Your task to perform on an android device: see creations saved in the google photos Image 0: 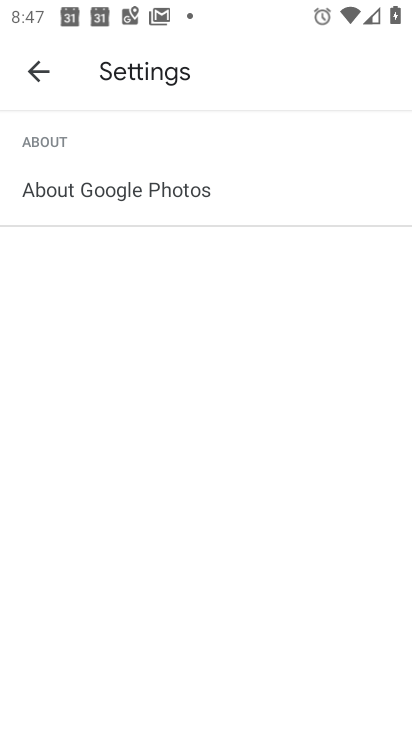
Step 0: press home button
Your task to perform on an android device: see creations saved in the google photos Image 1: 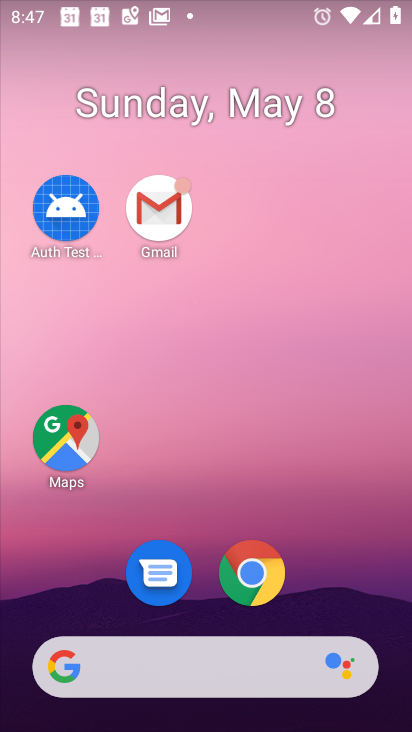
Step 1: drag from (320, 423) to (240, 199)
Your task to perform on an android device: see creations saved in the google photos Image 2: 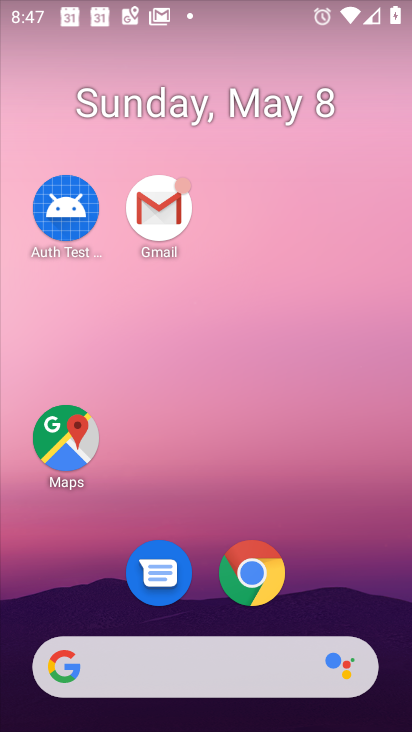
Step 2: drag from (365, 600) to (237, 191)
Your task to perform on an android device: see creations saved in the google photos Image 3: 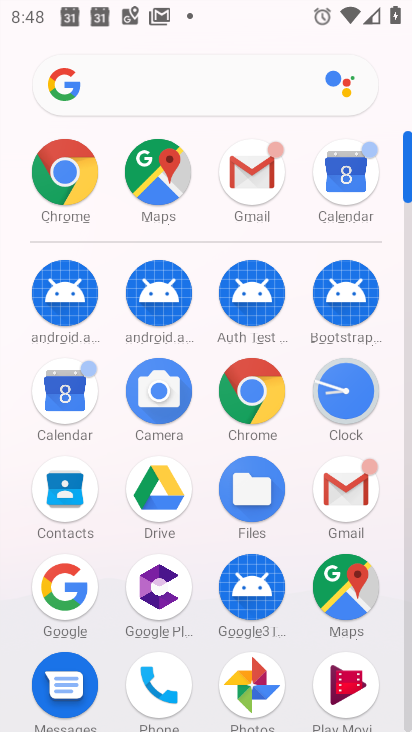
Step 3: click (257, 671)
Your task to perform on an android device: see creations saved in the google photos Image 4: 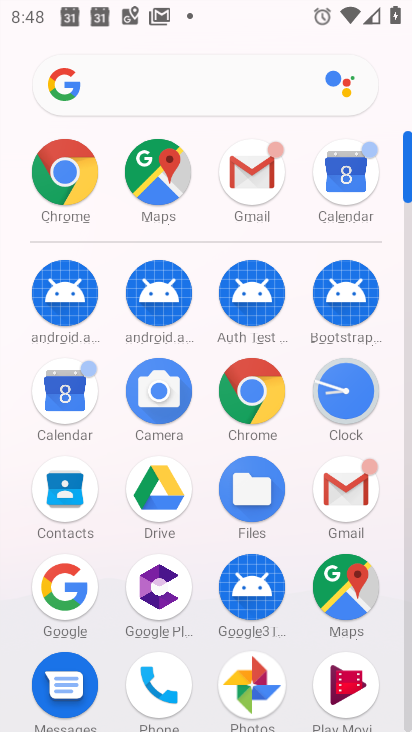
Step 4: click (258, 674)
Your task to perform on an android device: see creations saved in the google photos Image 5: 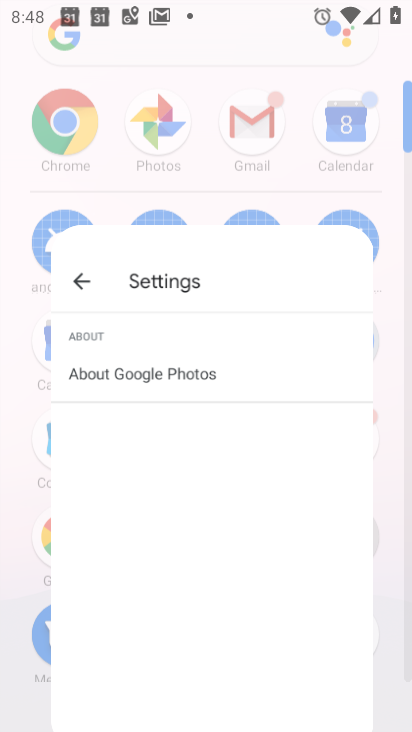
Step 5: click (258, 674)
Your task to perform on an android device: see creations saved in the google photos Image 6: 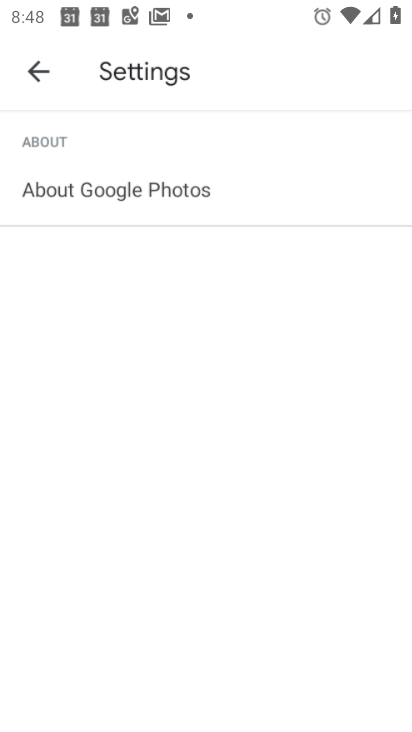
Step 6: click (254, 674)
Your task to perform on an android device: see creations saved in the google photos Image 7: 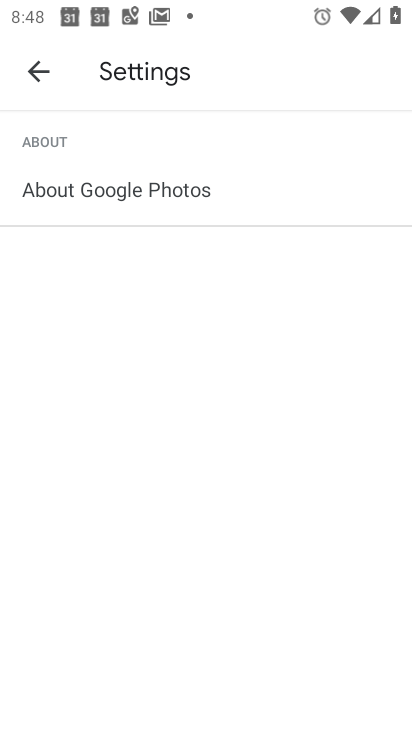
Step 7: click (247, 670)
Your task to perform on an android device: see creations saved in the google photos Image 8: 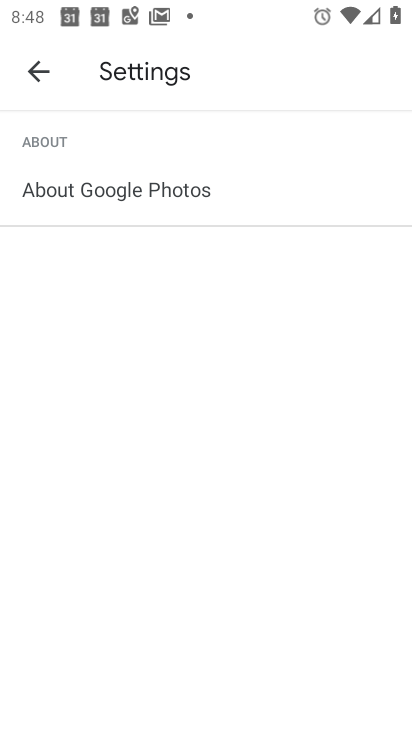
Step 8: click (246, 671)
Your task to perform on an android device: see creations saved in the google photos Image 9: 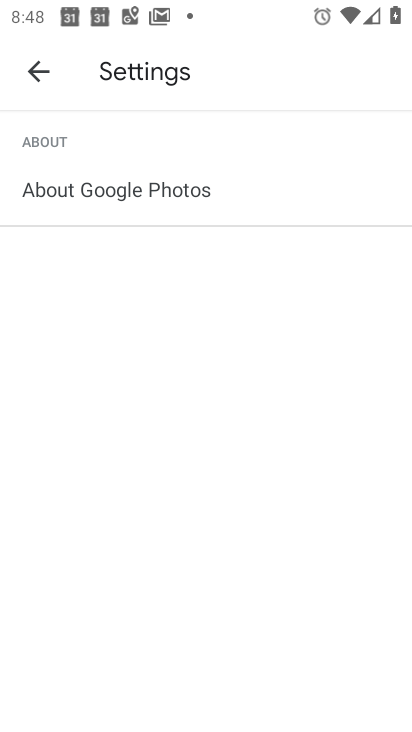
Step 9: click (38, 77)
Your task to perform on an android device: see creations saved in the google photos Image 10: 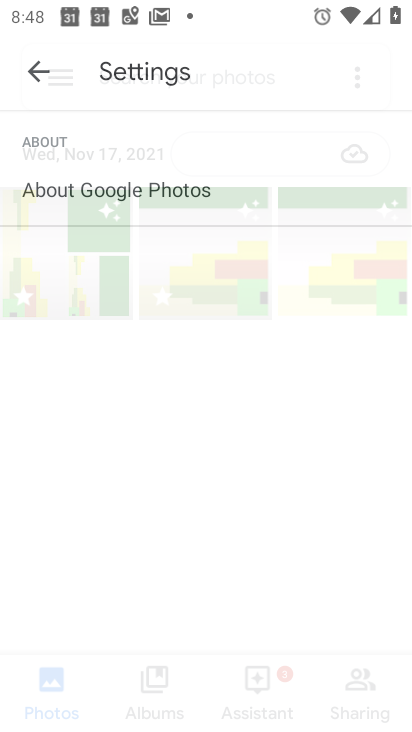
Step 10: click (36, 77)
Your task to perform on an android device: see creations saved in the google photos Image 11: 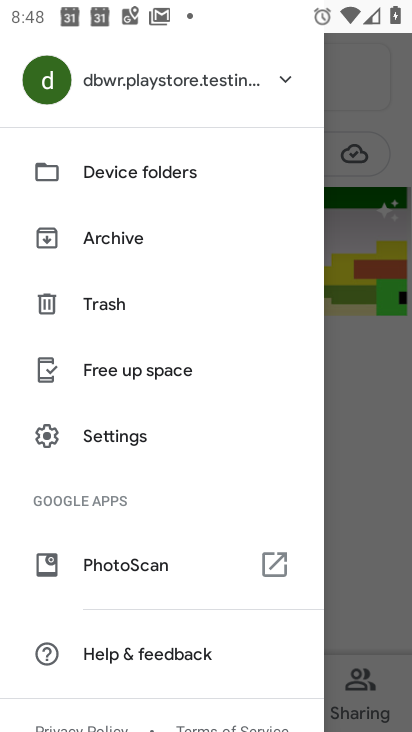
Step 11: click (365, 480)
Your task to perform on an android device: see creations saved in the google photos Image 12: 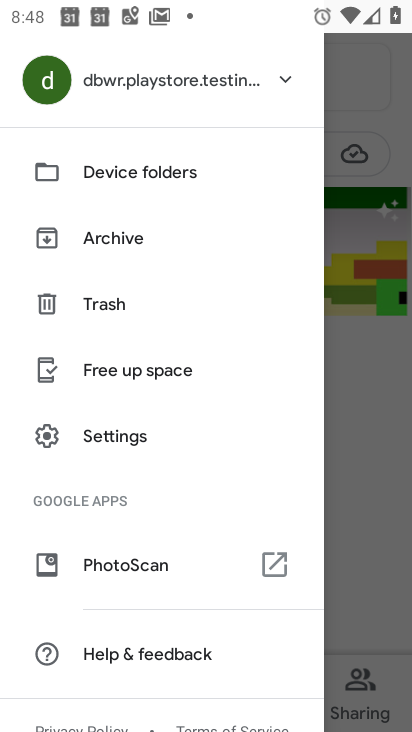
Step 12: click (365, 480)
Your task to perform on an android device: see creations saved in the google photos Image 13: 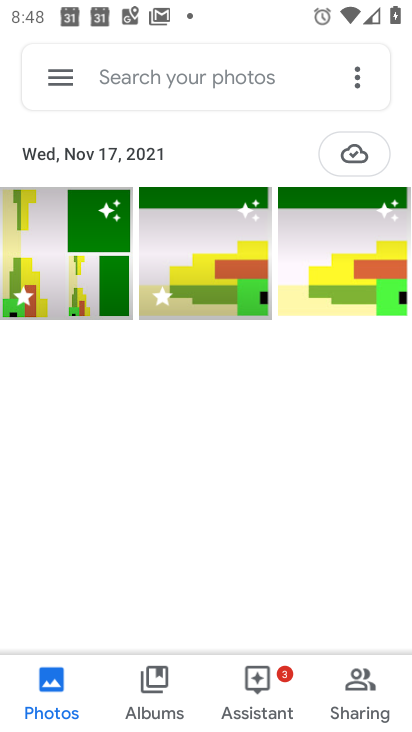
Step 13: task complete